Your task to perform on an android device: Open internet settings Image 0: 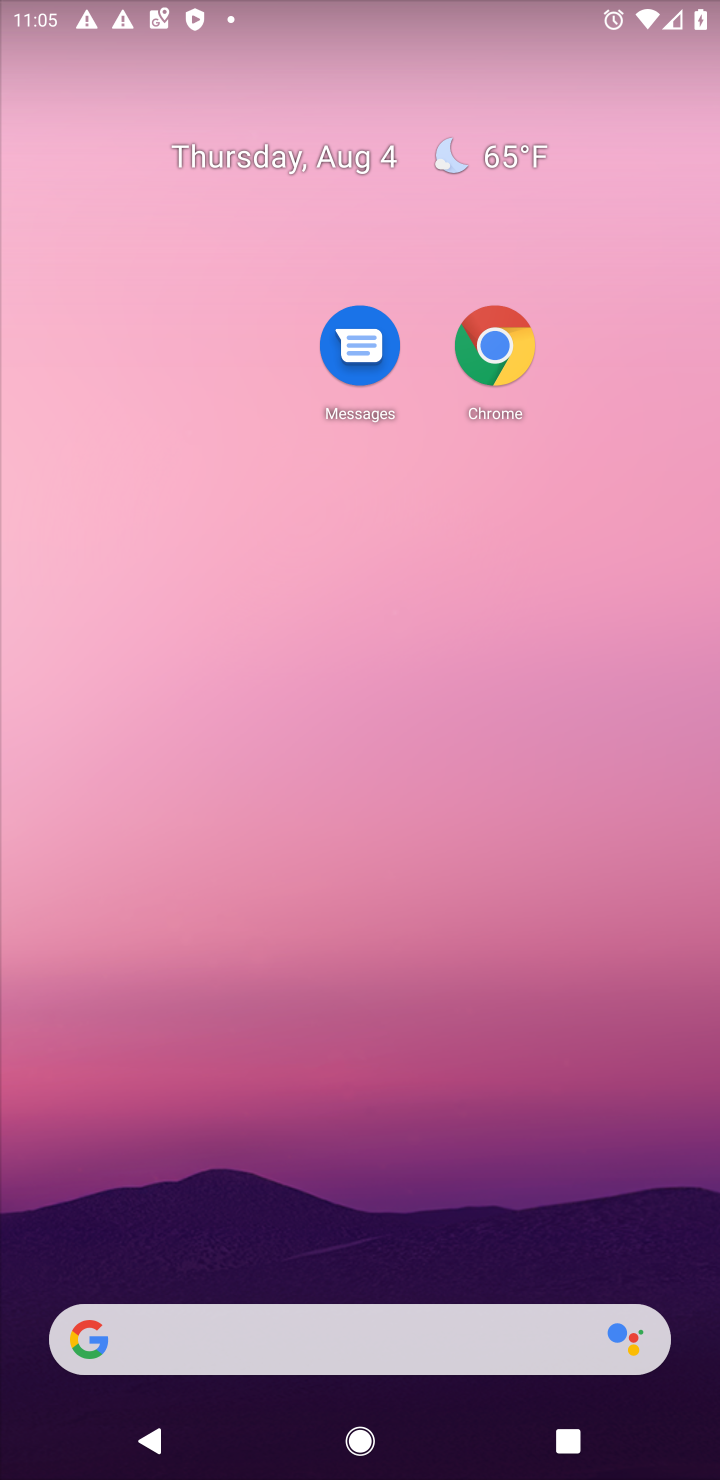
Step 0: drag from (356, 1249) to (519, 398)
Your task to perform on an android device: Open internet settings Image 1: 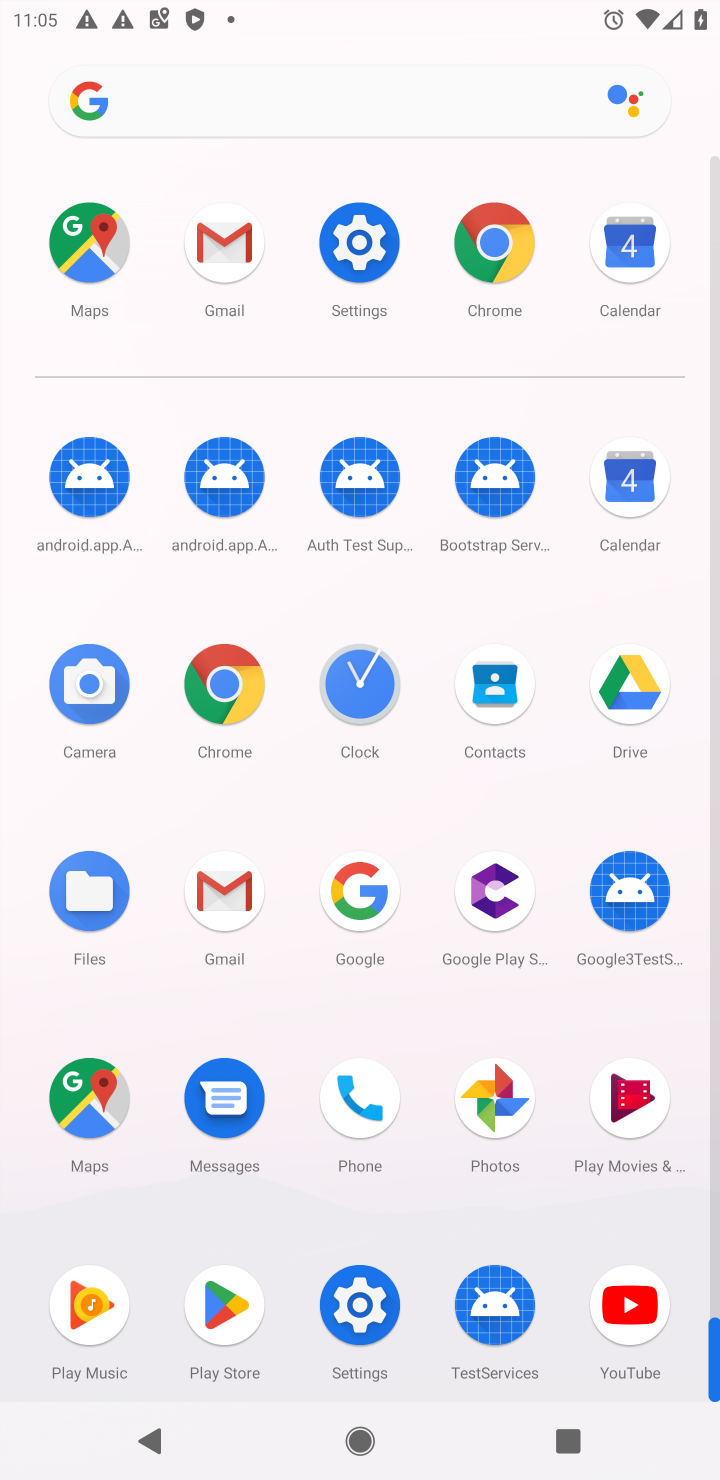
Step 1: click (342, 280)
Your task to perform on an android device: Open internet settings Image 2: 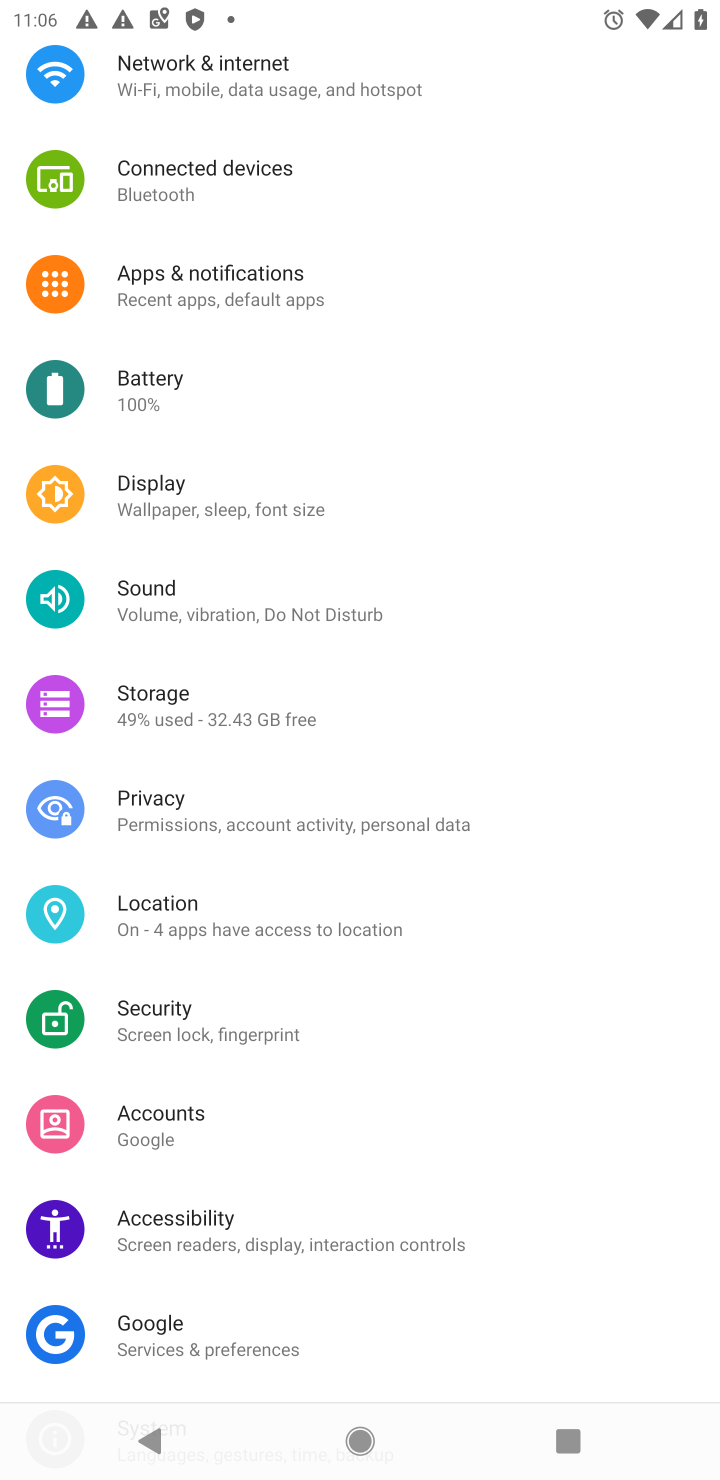
Step 2: drag from (352, 399) to (285, 1334)
Your task to perform on an android device: Open internet settings Image 3: 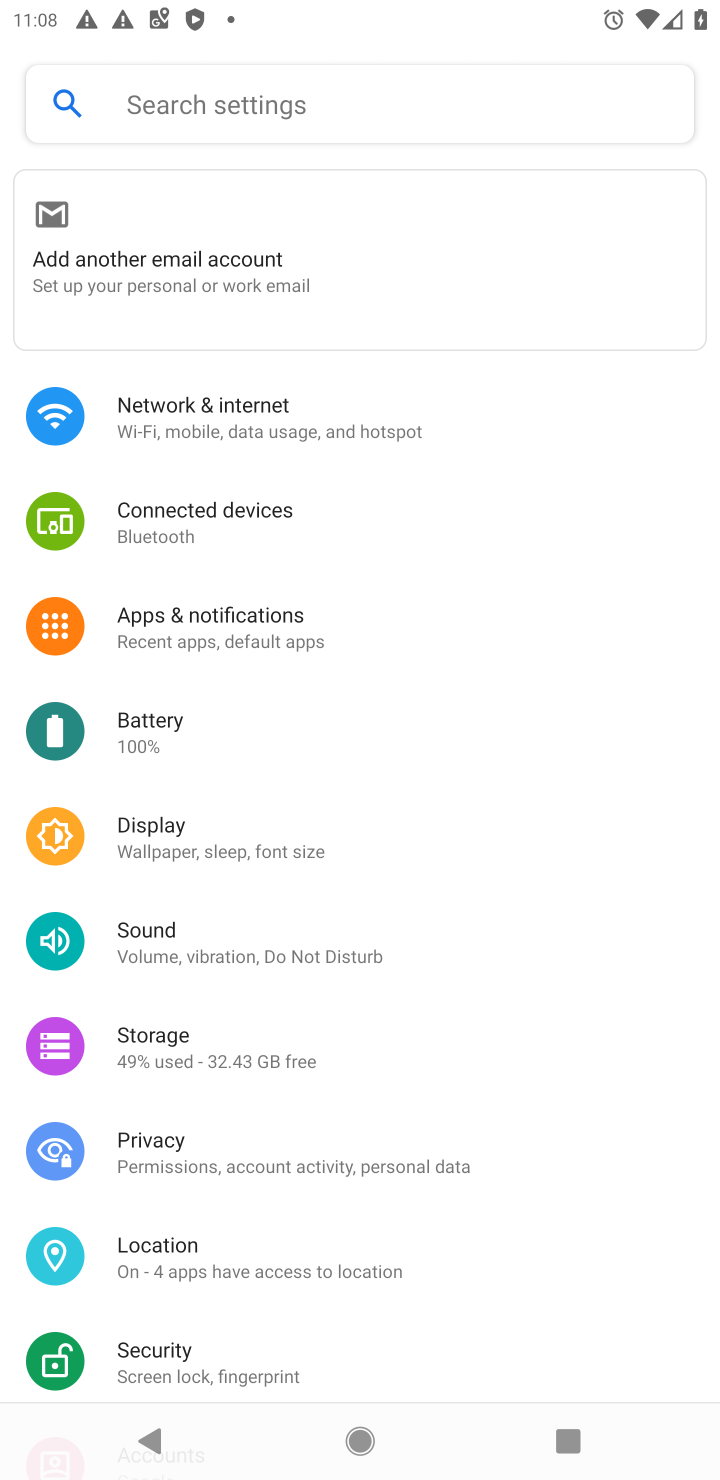
Step 3: click (170, 432)
Your task to perform on an android device: Open internet settings Image 4: 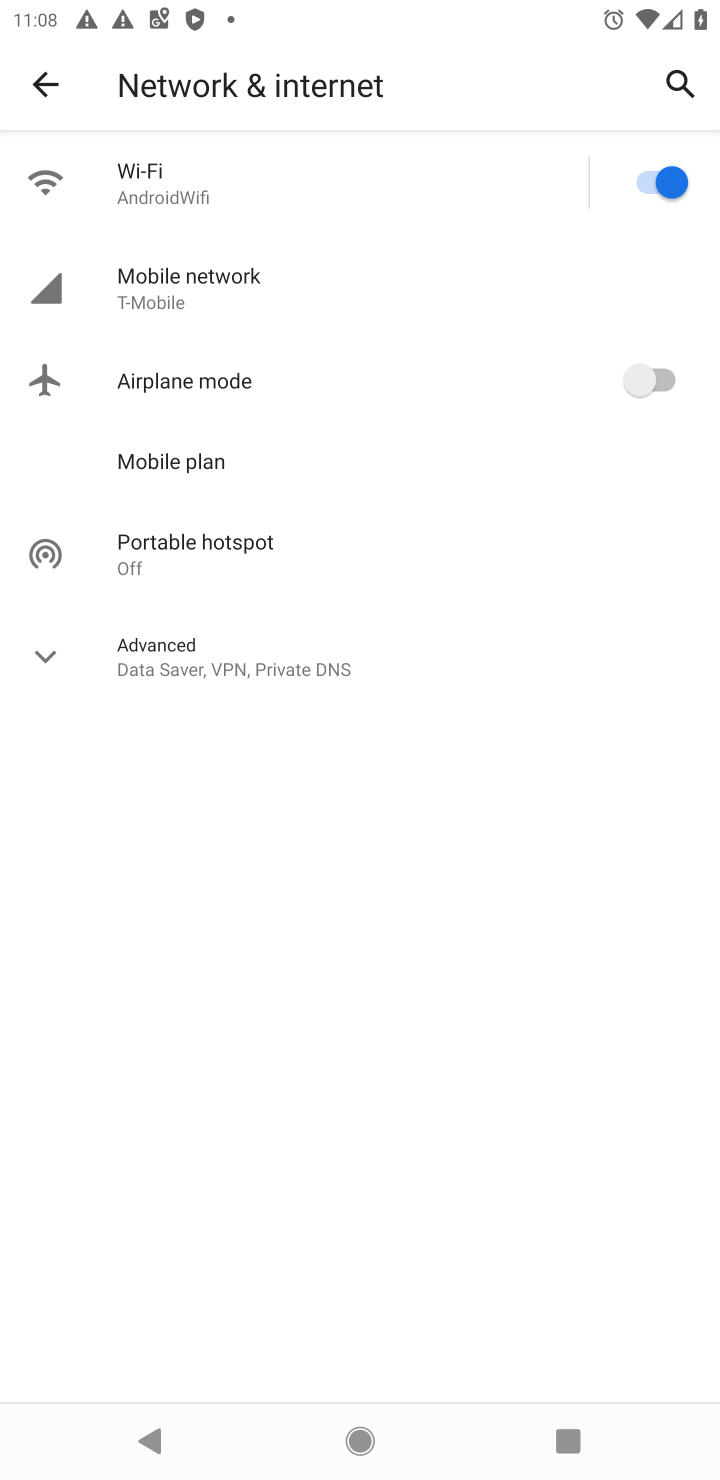
Step 4: task complete